Your task to perform on an android device: turn smart compose on in the gmail app Image 0: 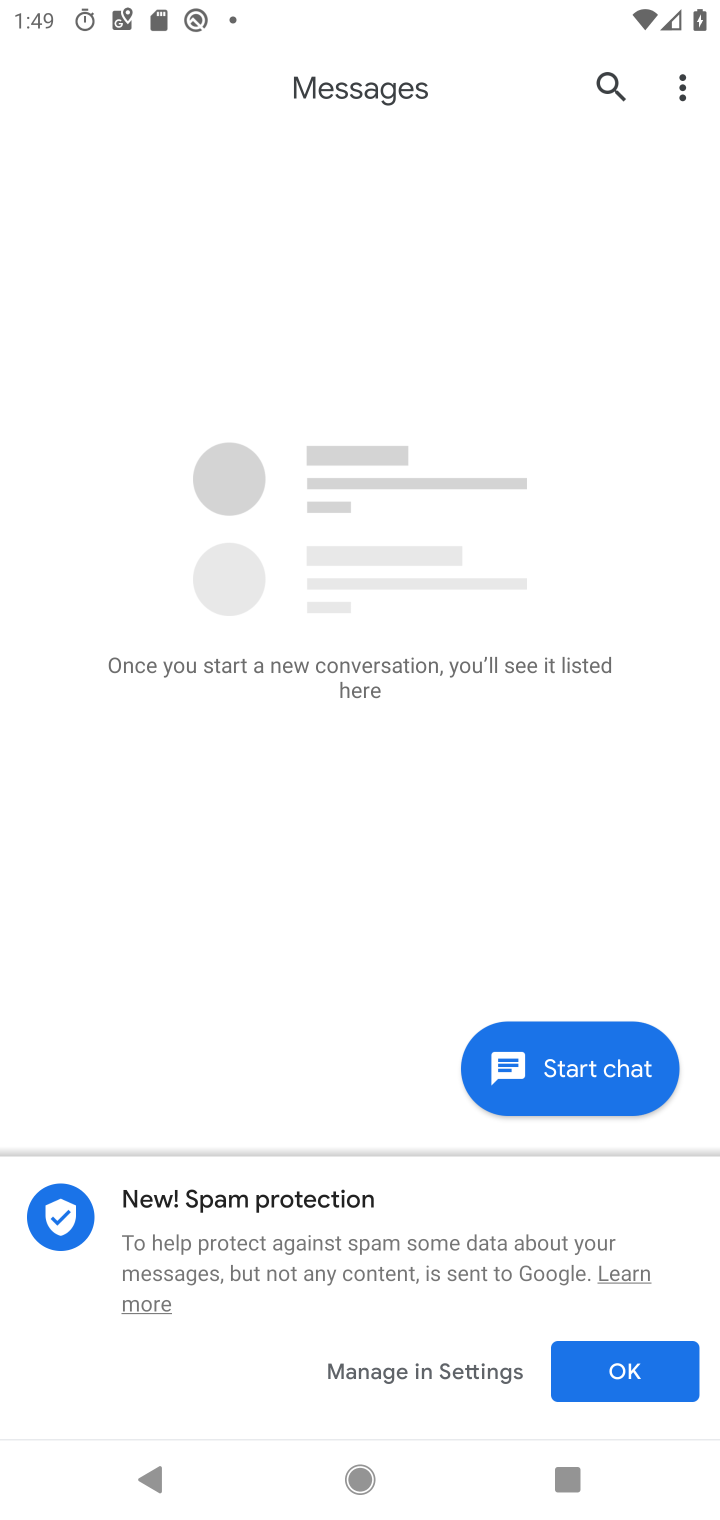
Step 0: press home button
Your task to perform on an android device: turn smart compose on in the gmail app Image 1: 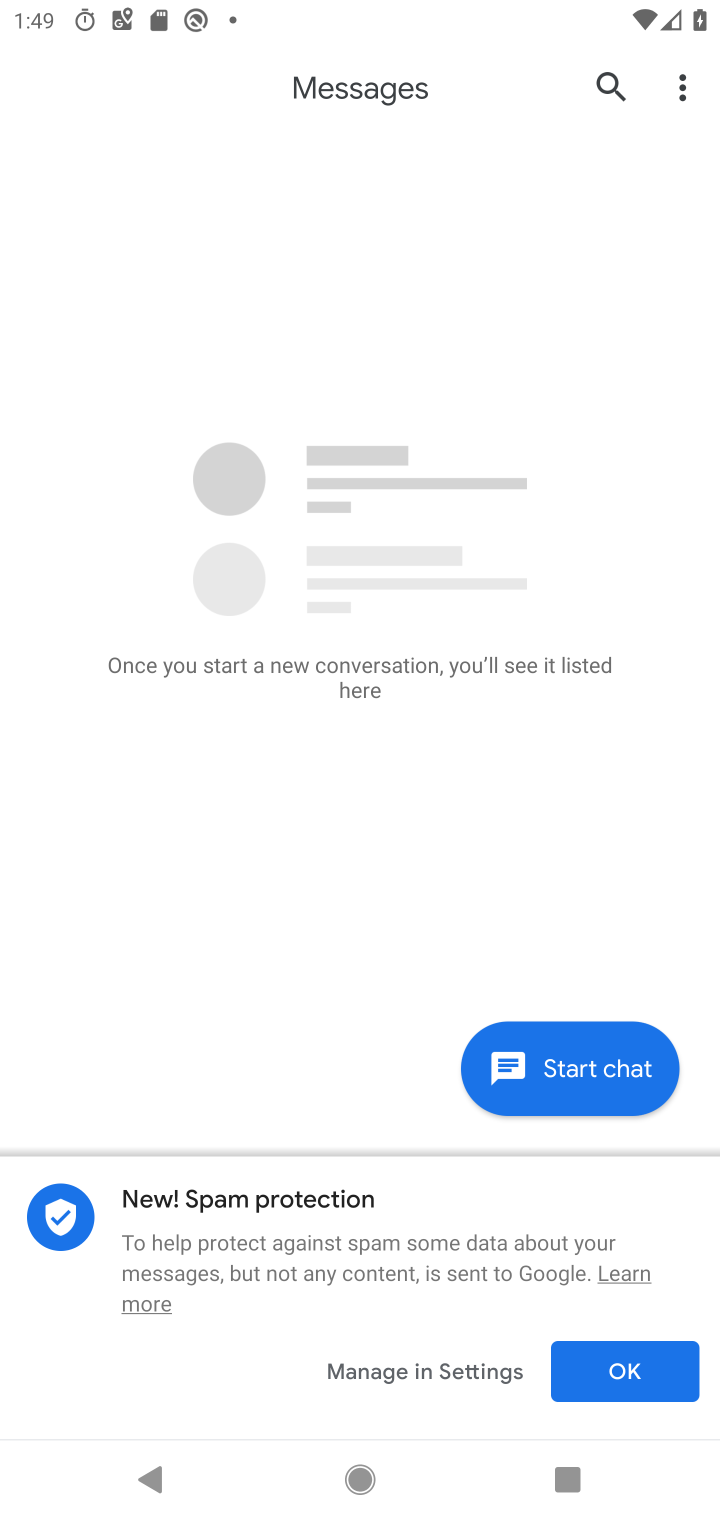
Step 1: press home button
Your task to perform on an android device: turn smart compose on in the gmail app Image 2: 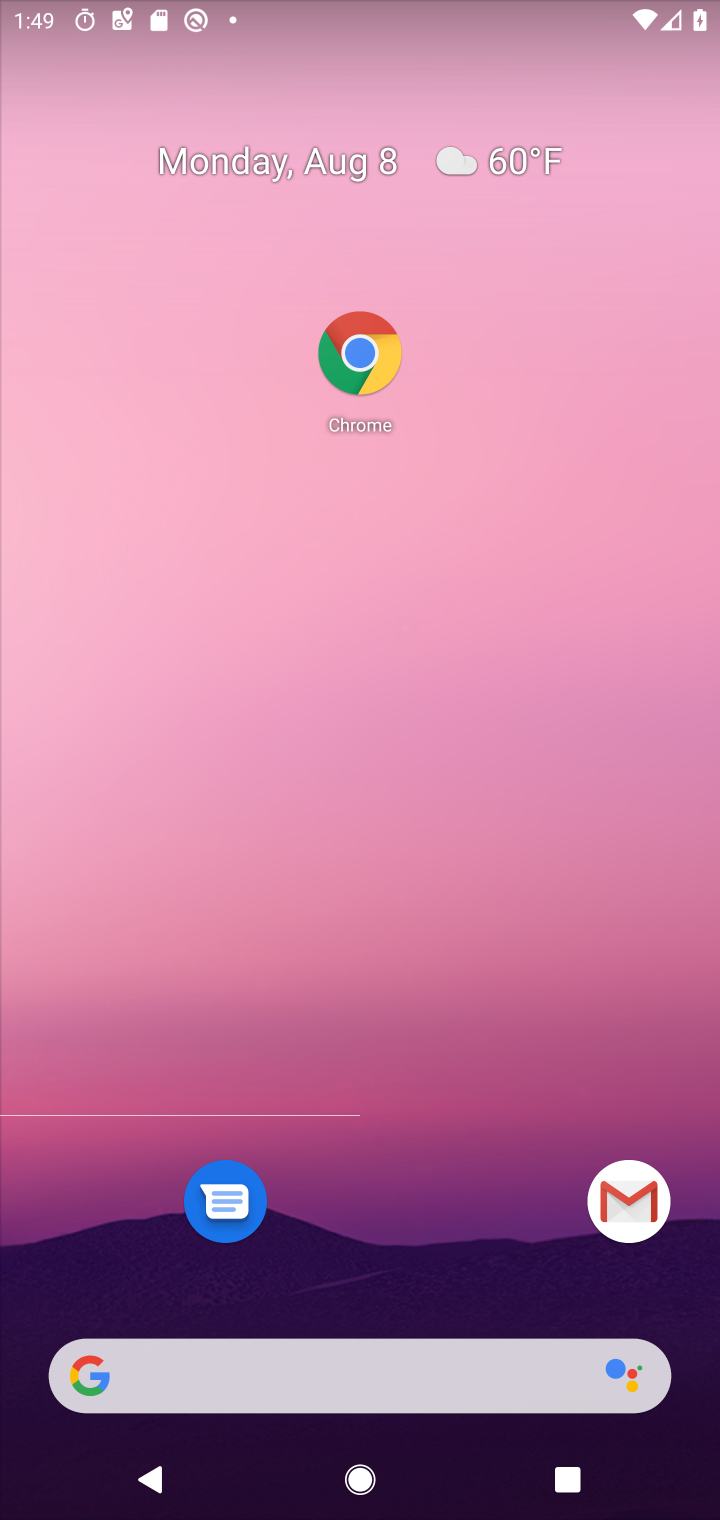
Step 2: click (617, 1223)
Your task to perform on an android device: turn smart compose on in the gmail app Image 3: 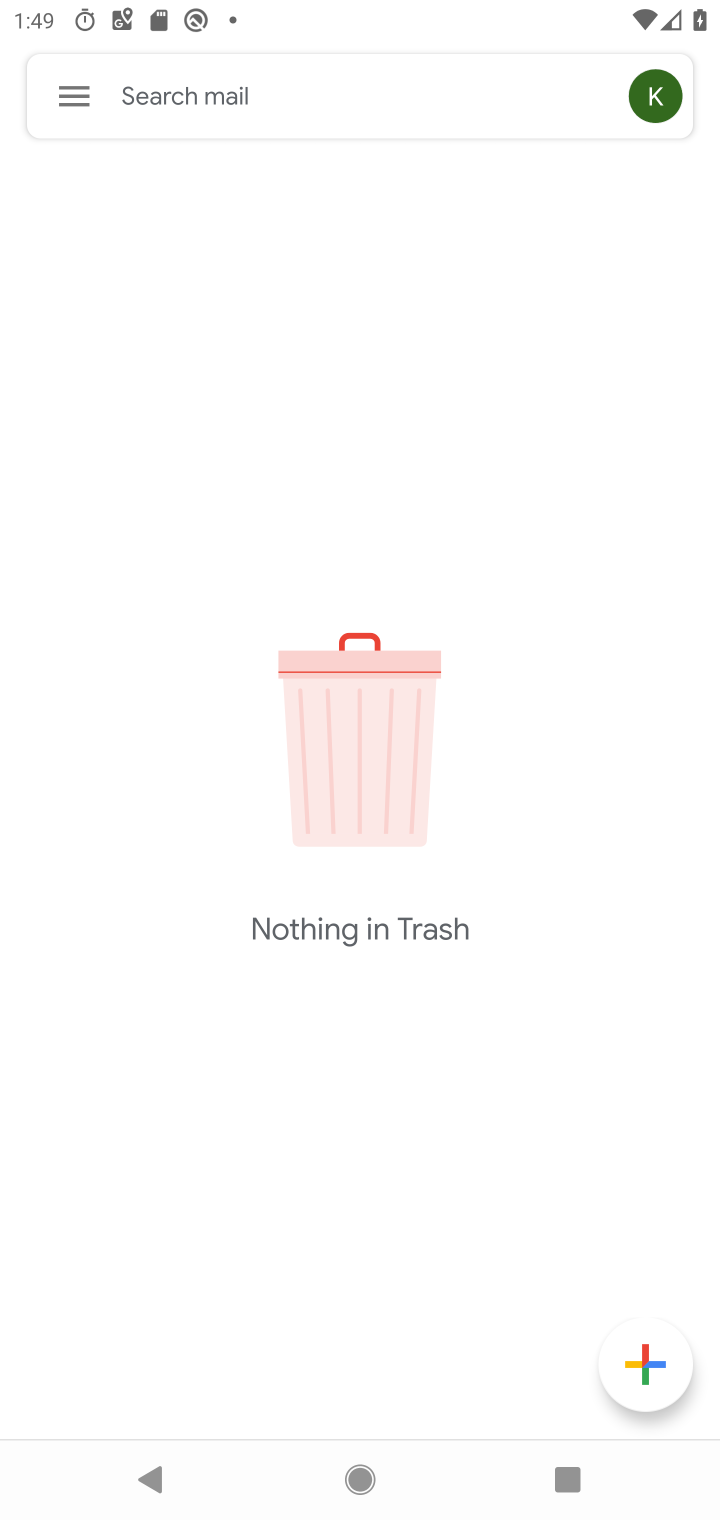
Step 3: click (65, 102)
Your task to perform on an android device: turn smart compose on in the gmail app Image 4: 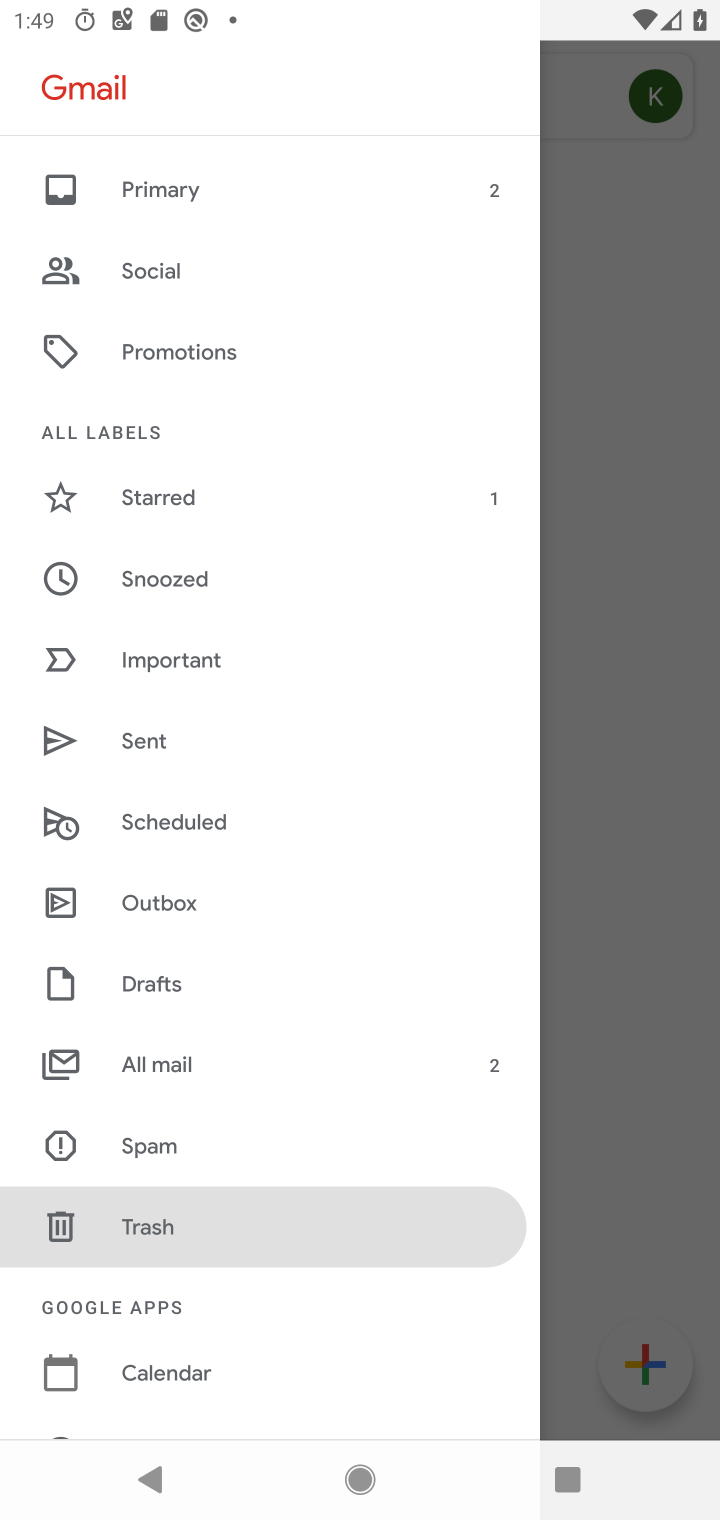
Step 4: drag from (202, 1383) to (239, 1210)
Your task to perform on an android device: turn smart compose on in the gmail app Image 5: 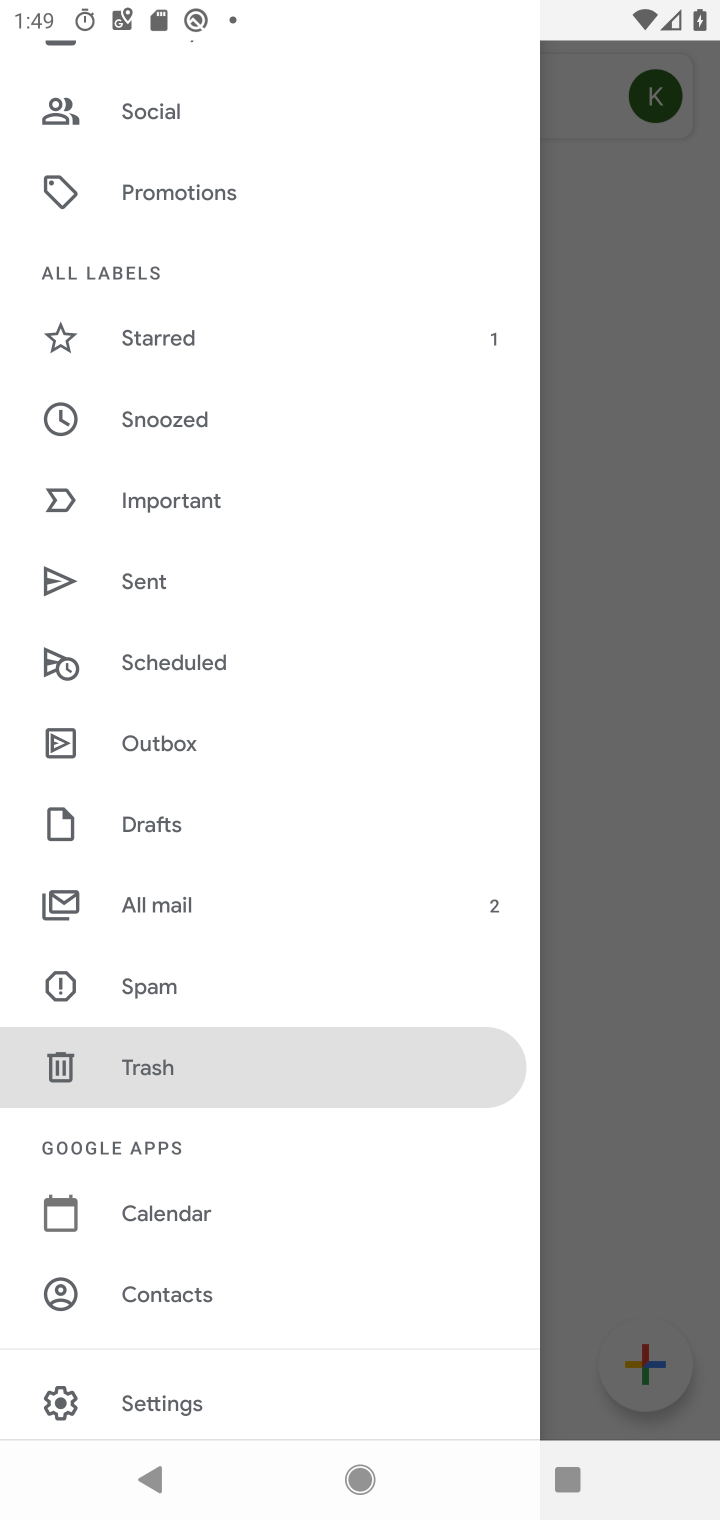
Step 5: click (164, 1383)
Your task to perform on an android device: turn smart compose on in the gmail app Image 6: 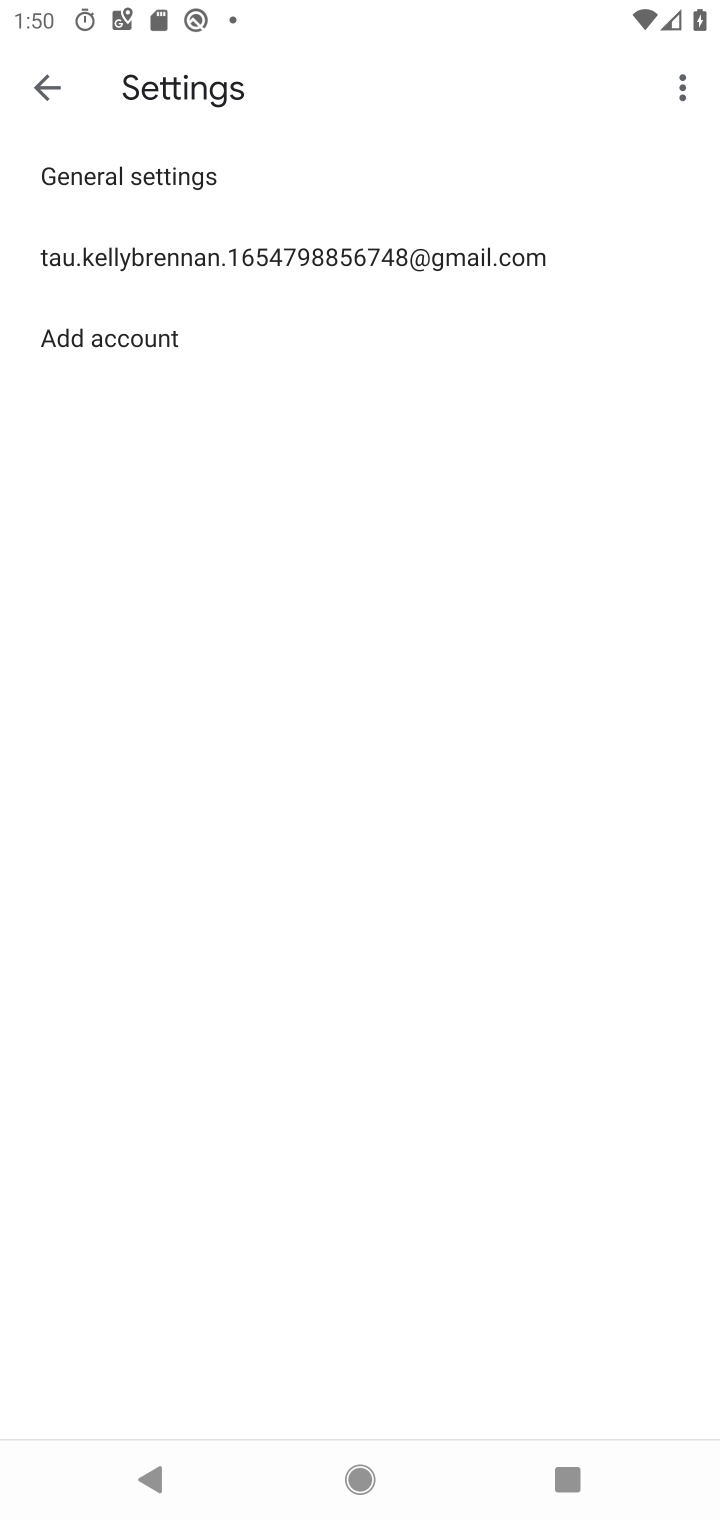
Step 6: click (188, 247)
Your task to perform on an android device: turn smart compose on in the gmail app Image 7: 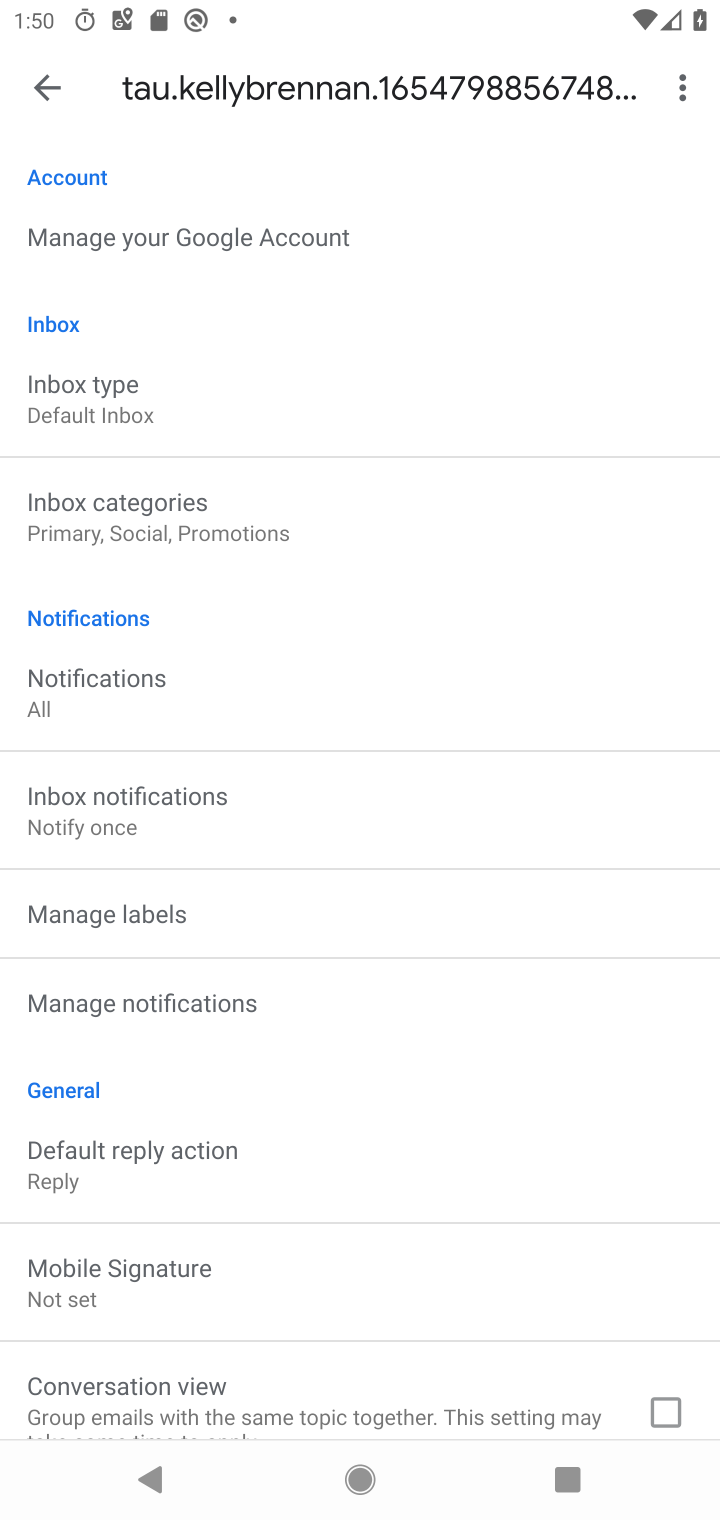
Step 7: task complete